Your task to perform on an android device: add a label to a message in the gmail app Image 0: 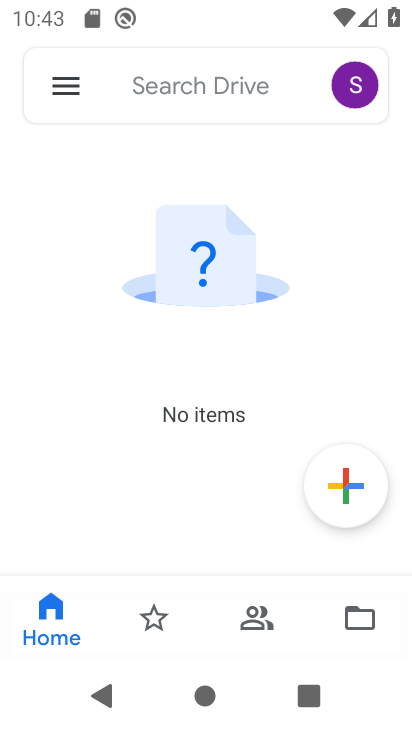
Step 0: press back button
Your task to perform on an android device: add a label to a message in the gmail app Image 1: 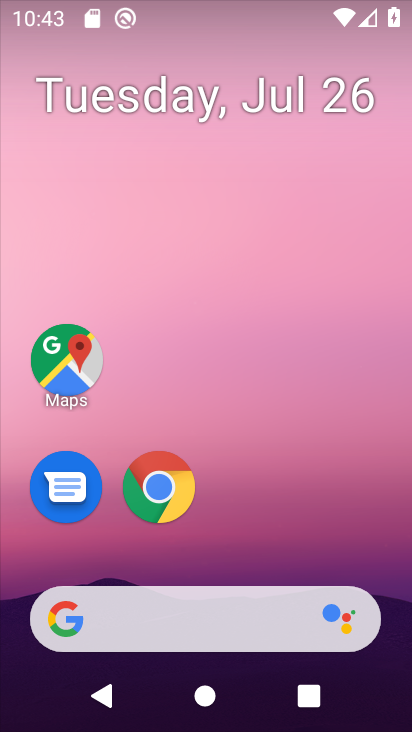
Step 1: drag from (273, 565) to (279, 23)
Your task to perform on an android device: add a label to a message in the gmail app Image 2: 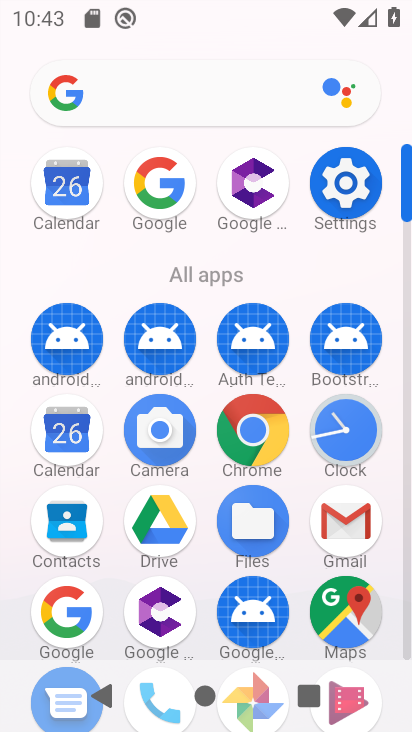
Step 2: click (328, 519)
Your task to perform on an android device: add a label to a message in the gmail app Image 3: 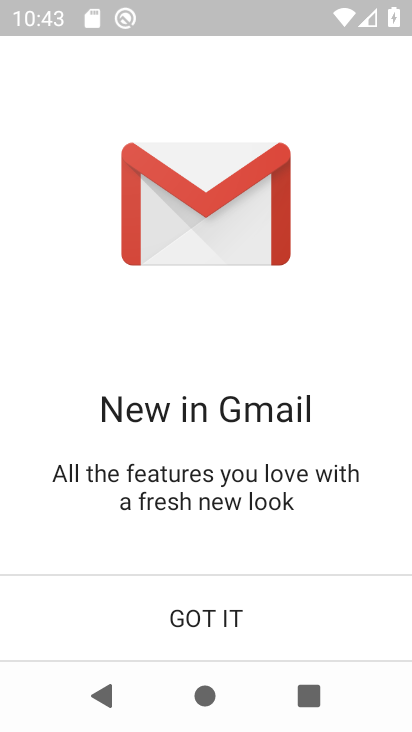
Step 3: click (188, 621)
Your task to perform on an android device: add a label to a message in the gmail app Image 4: 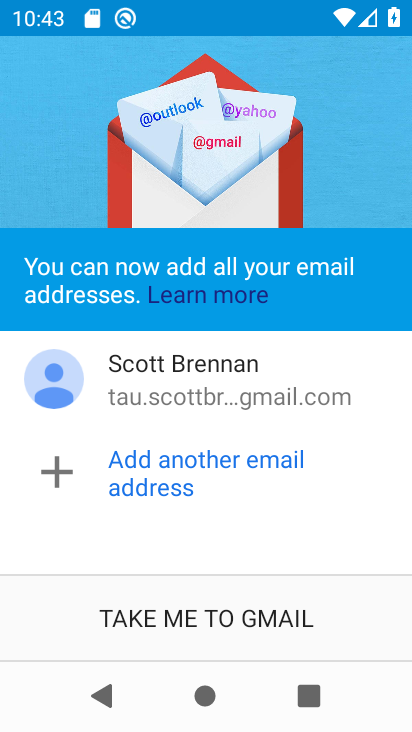
Step 4: click (197, 613)
Your task to perform on an android device: add a label to a message in the gmail app Image 5: 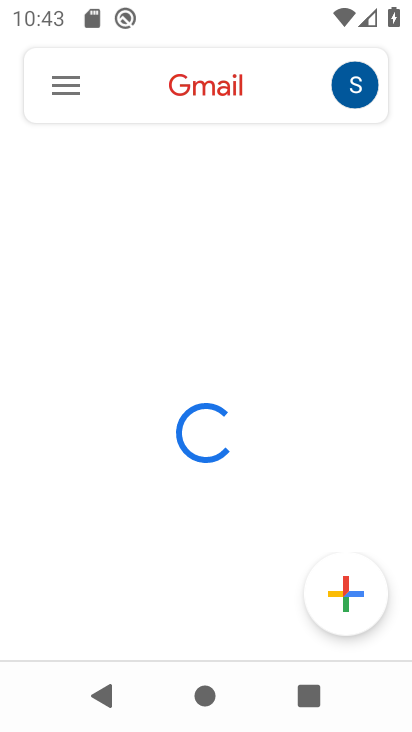
Step 5: click (77, 79)
Your task to perform on an android device: add a label to a message in the gmail app Image 6: 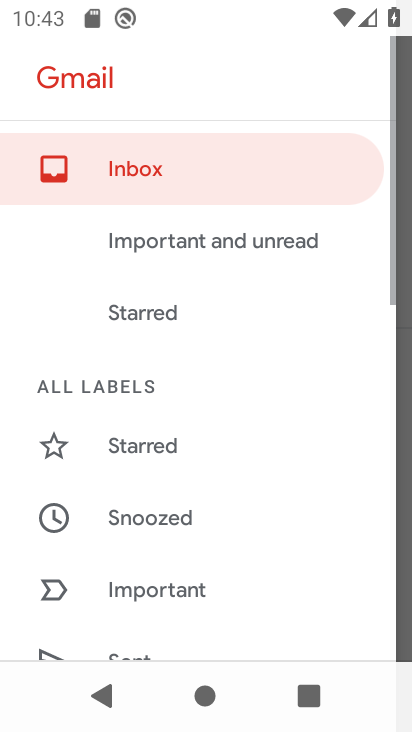
Step 6: drag from (187, 585) to (279, 105)
Your task to perform on an android device: add a label to a message in the gmail app Image 7: 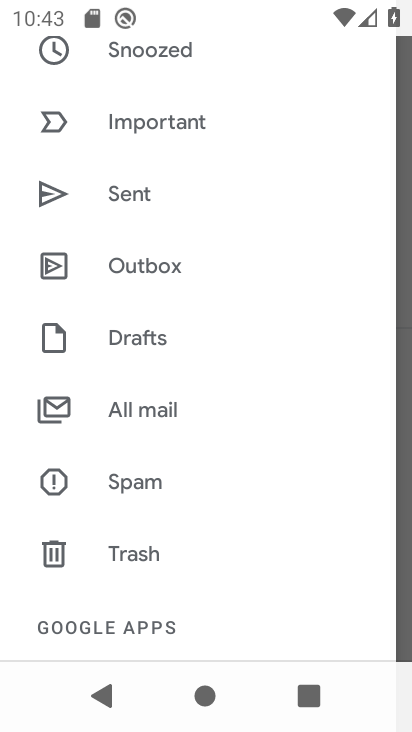
Step 7: click (129, 407)
Your task to perform on an android device: add a label to a message in the gmail app Image 8: 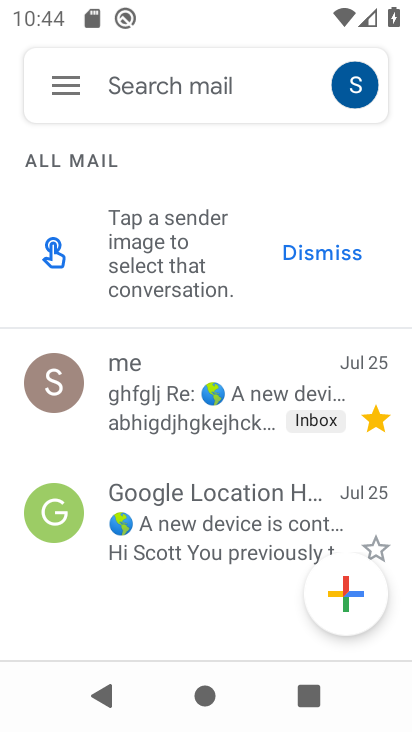
Step 8: click (230, 522)
Your task to perform on an android device: add a label to a message in the gmail app Image 9: 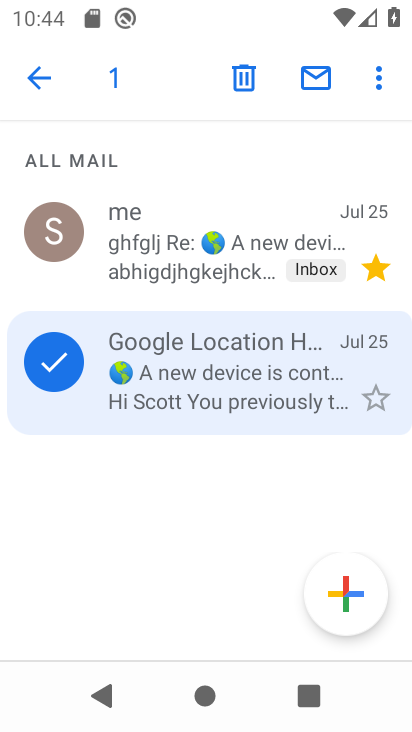
Step 9: click (378, 78)
Your task to perform on an android device: add a label to a message in the gmail app Image 10: 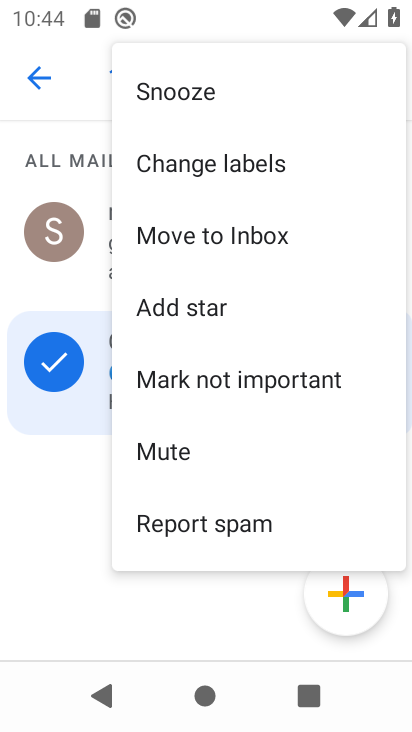
Step 10: click (219, 162)
Your task to perform on an android device: add a label to a message in the gmail app Image 11: 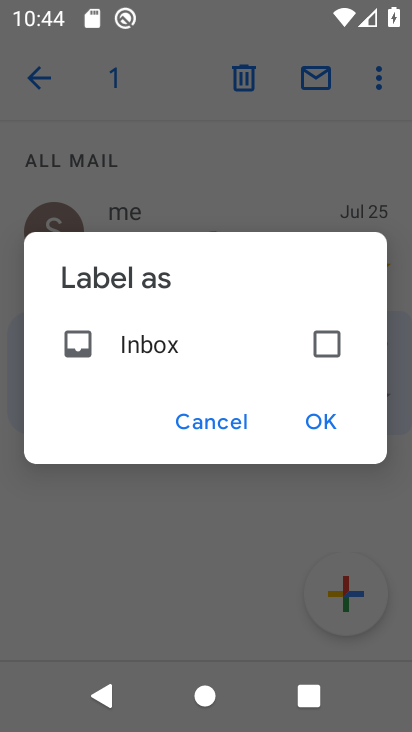
Step 11: click (323, 329)
Your task to perform on an android device: add a label to a message in the gmail app Image 12: 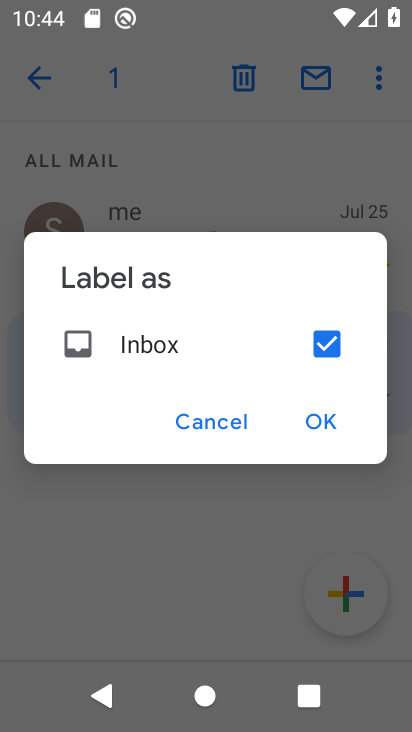
Step 12: click (306, 416)
Your task to perform on an android device: add a label to a message in the gmail app Image 13: 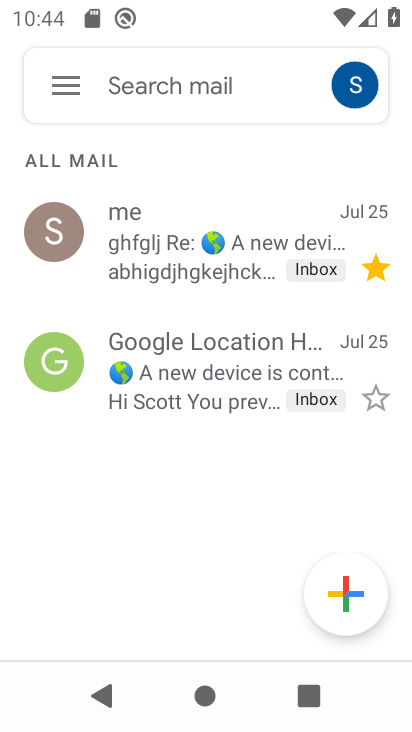
Step 13: task complete